Your task to perform on an android device: set default search engine in the chrome app Image 0: 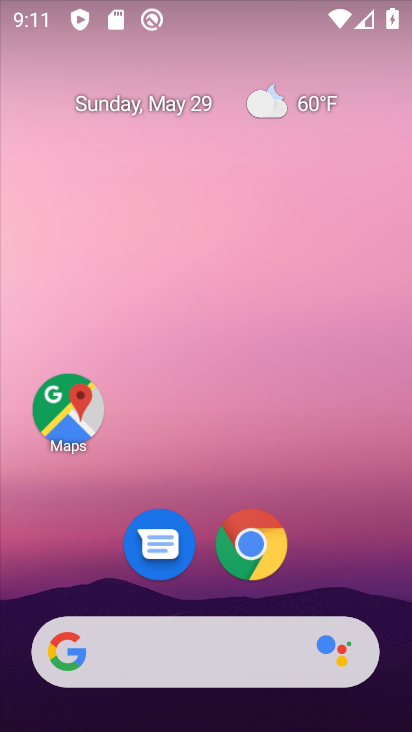
Step 0: click (258, 576)
Your task to perform on an android device: set default search engine in the chrome app Image 1: 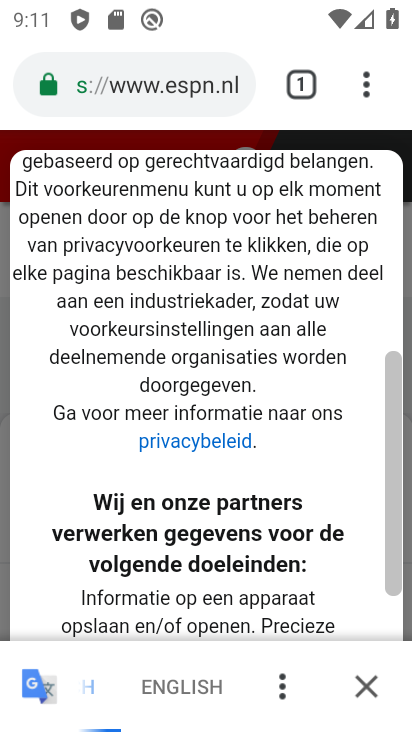
Step 1: click (357, 79)
Your task to perform on an android device: set default search engine in the chrome app Image 2: 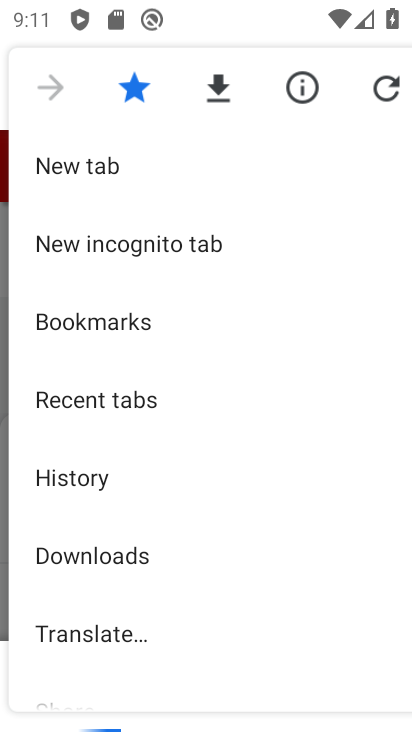
Step 2: drag from (236, 540) to (234, 120)
Your task to perform on an android device: set default search engine in the chrome app Image 3: 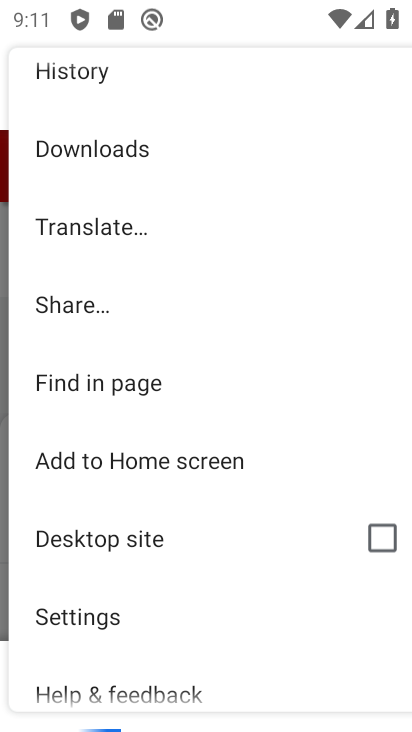
Step 3: click (63, 629)
Your task to perform on an android device: set default search engine in the chrome app Image 4: 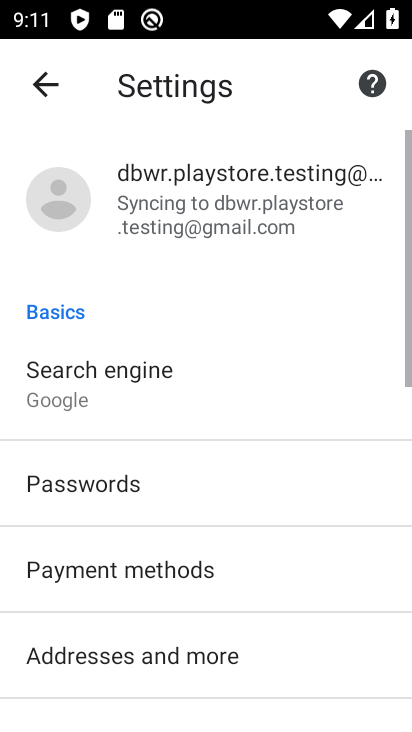
Step 4: click (131, 416)
Your task to perform on an android device: set default search engine in the chrome app Image 5: 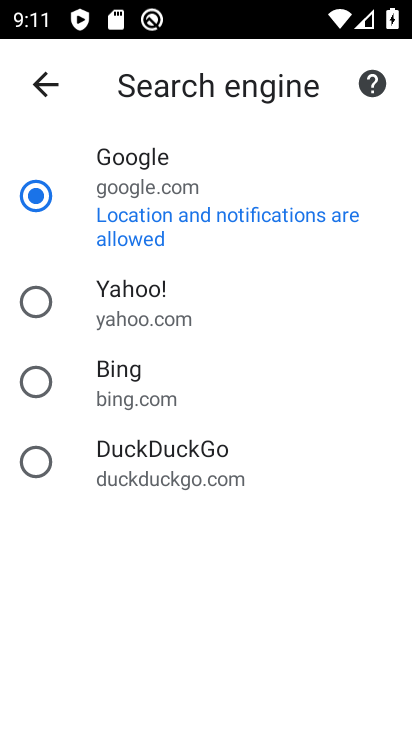
Step 5: task complete